Your task to perform on an android device: refresh tabs in the chrome app Image 0: 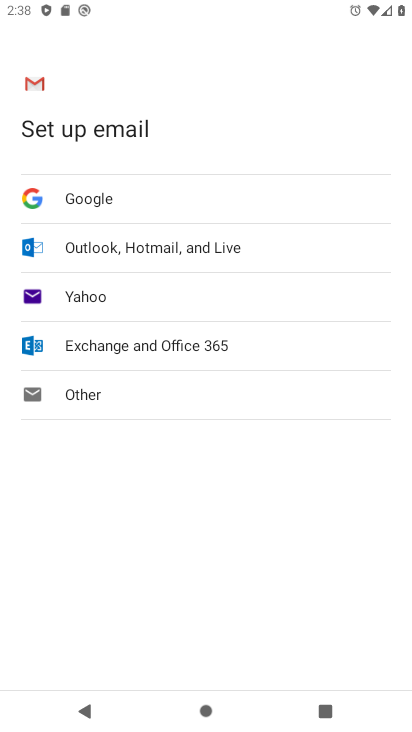
Step 0: press home button
Your task to perform on an android device: refresh tabs in the chrome app Image 1: 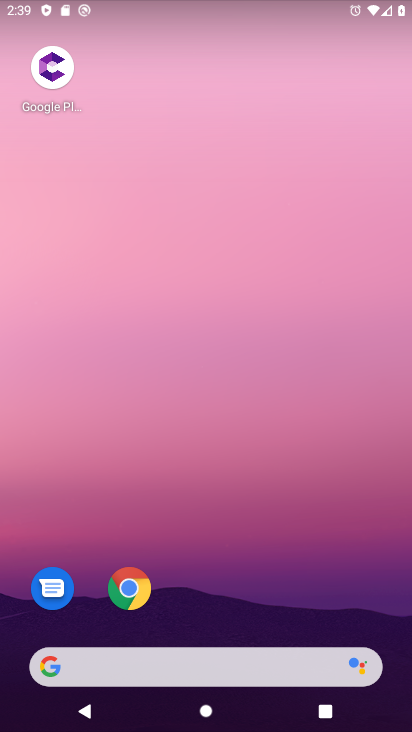
Step 1: click (139, 582)
Your task to perform on an android device: refresh tabs in the chrome app Image 2: 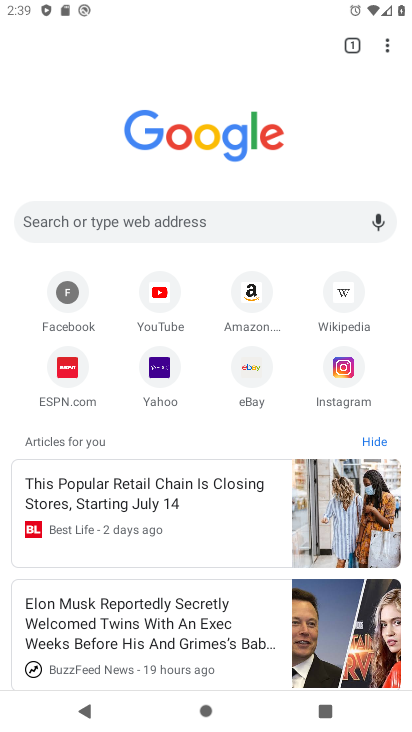
Step 2: click (382, 39)
Your task to perform on an android device: refresh tabs in the chrome app Image 3: 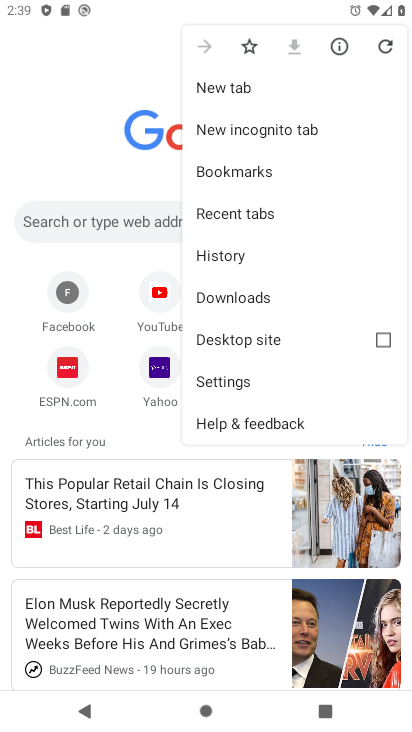
Step 3: click (382, 39)
Your task to perform on an android device: refresh tabs in the chrome app Image 4: 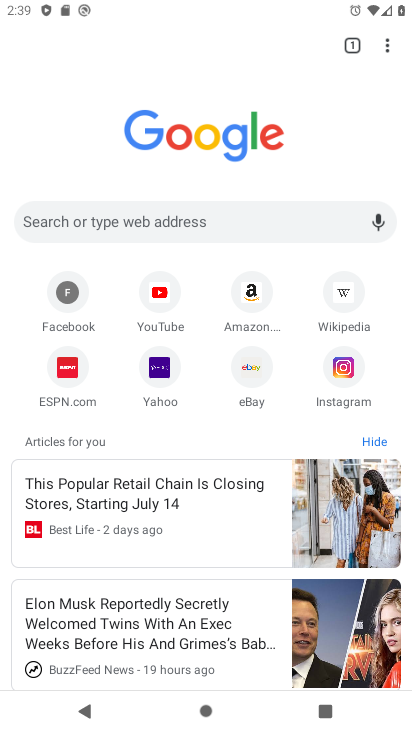
Step 4: task complete